Your task to perform on an android device: Search for macbook pro 15 inch on newegg.com, select the first entry, and add it to the cart. Image 0: 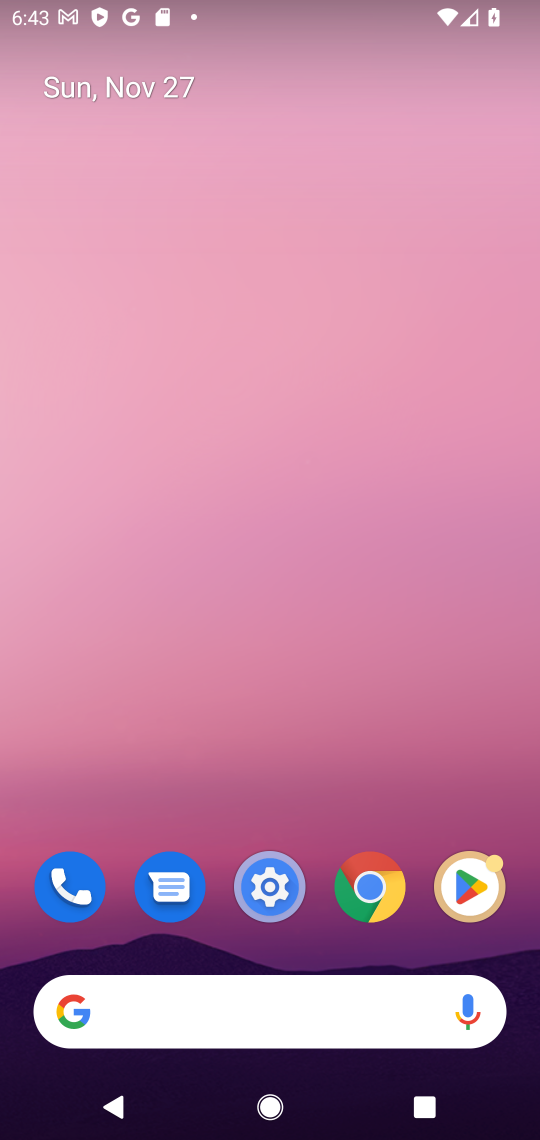
Step 0: click (266, 1005)
Your task to perform on an android device: Search for macbook pro 15 inch on newegg.com, select the first entry, and add it to the cart. Image 1: 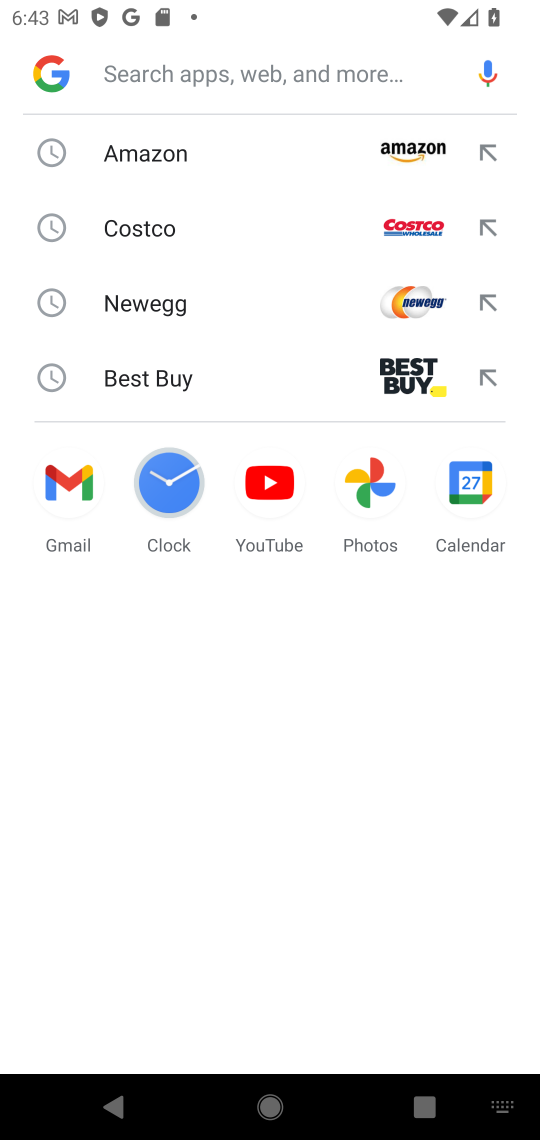
Step 1: type "newegg.com"
Your task to perform on an android device: Search for macbook pro 15 inch on newegg.com, select the first entry, and add it to the cart. Image 2: 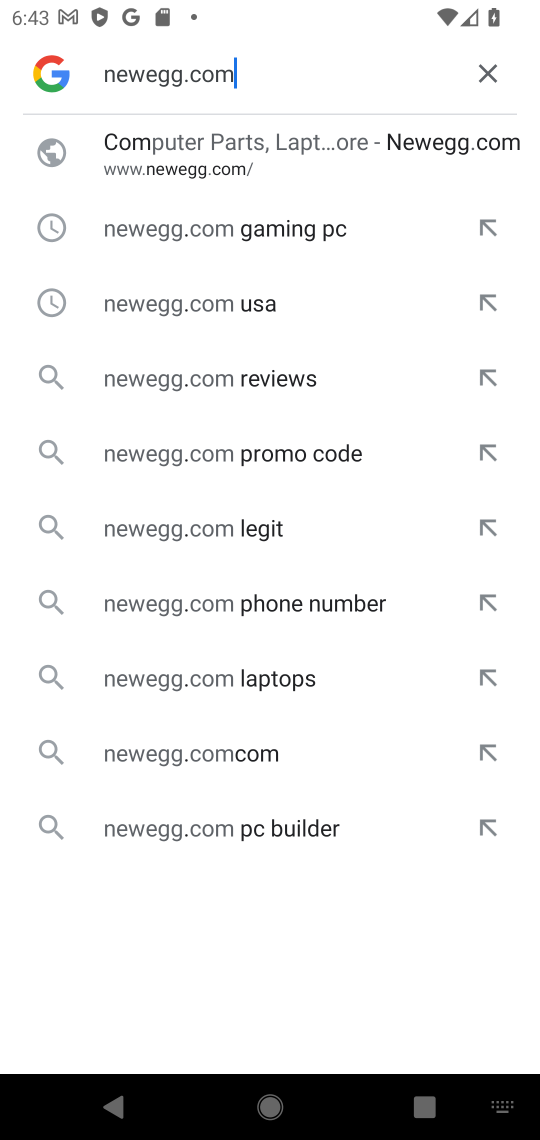
Step 2: click (202, 156)
Your task to perform on an android device: Search for macbook pro 15 inch on newegg.com, select the first entry, and add it to the cart. Image 3: 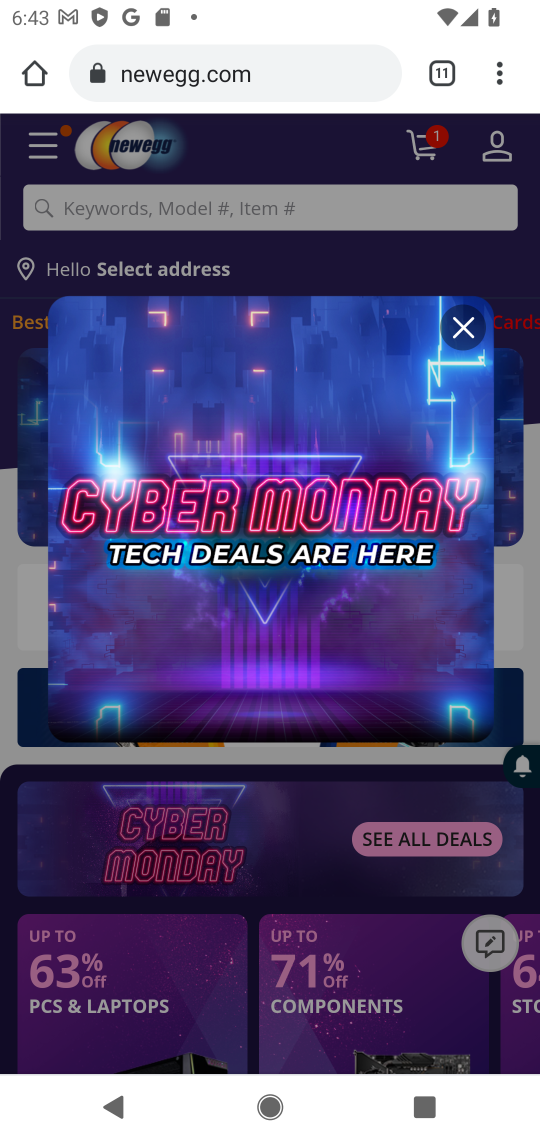
Step 3: click (174, 228)
Your task to perform on an android device: Search for macbook pro 15 inch on newegg.com, select the first entry, and add it to the cart. Image 4: 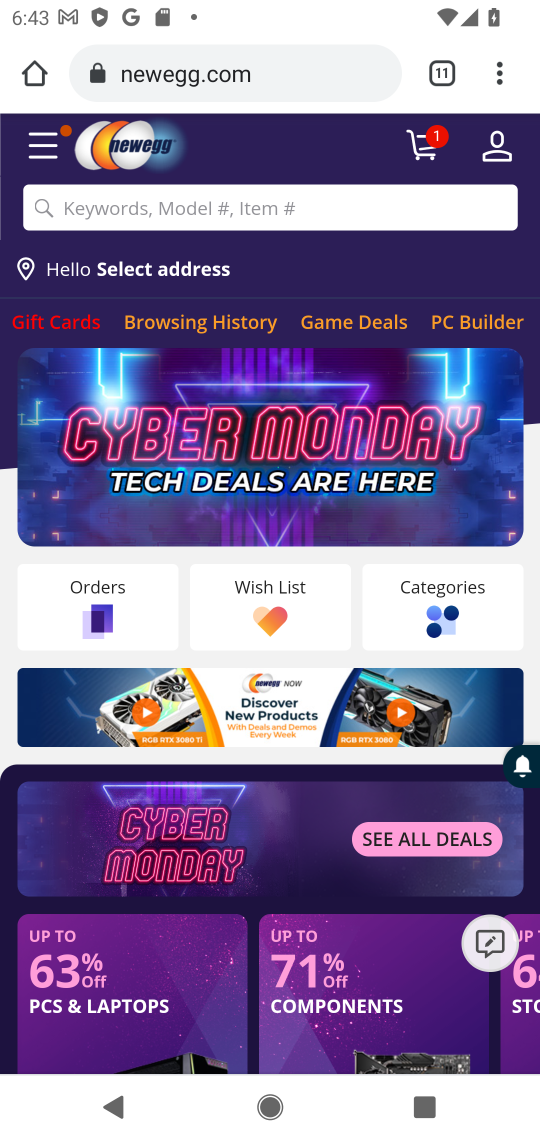
Step 4: type "macbook pro 15"
Your task to perform on an android device: Search for macbook pro 15 inch on newegg.com, select the first entry, and add it to the cart. Image 5: 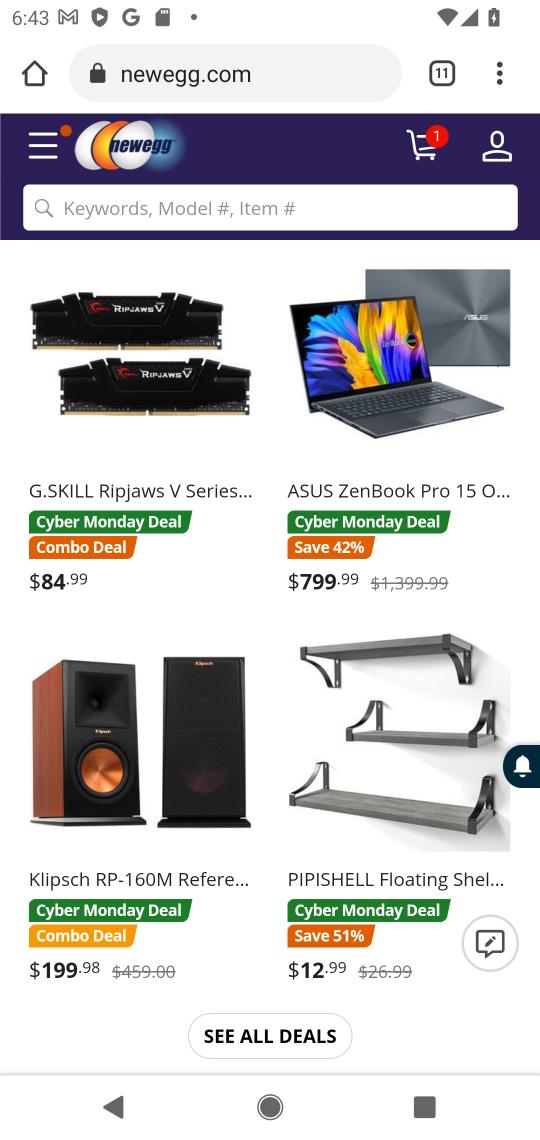
Step 5: click (150, 228)
Your task to perform on an android device: Search for macbook pro 15 inch on newegg.com, select the first entry, and add it to the cart. Image 6: 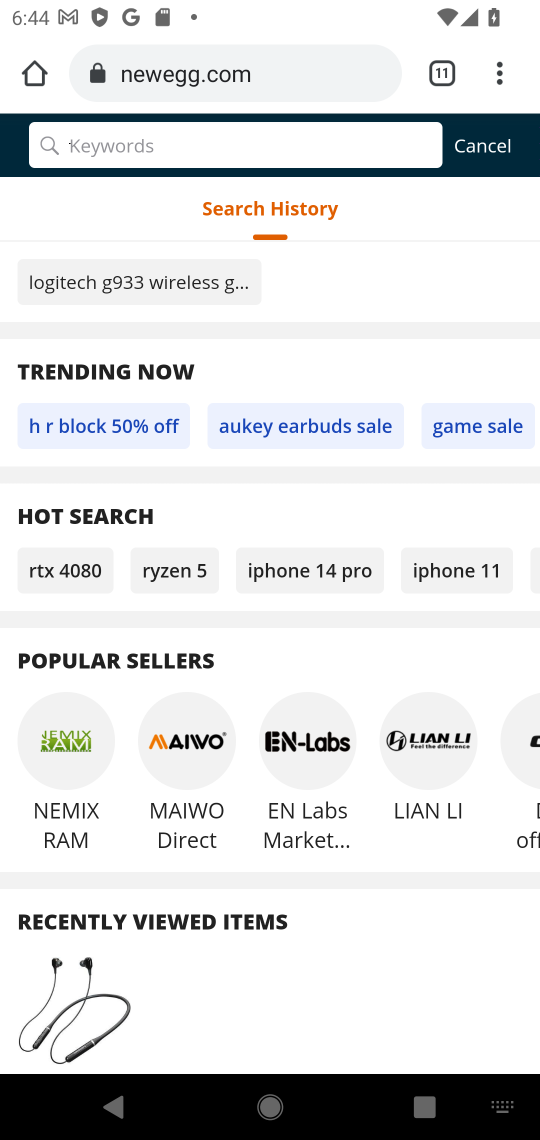
Step 6: type "macbook pro 15"
Your task to perform on an android device: Search for macbook pro 15 inch on newegg.com, select the first entry, and add it to the cart. Image 7: 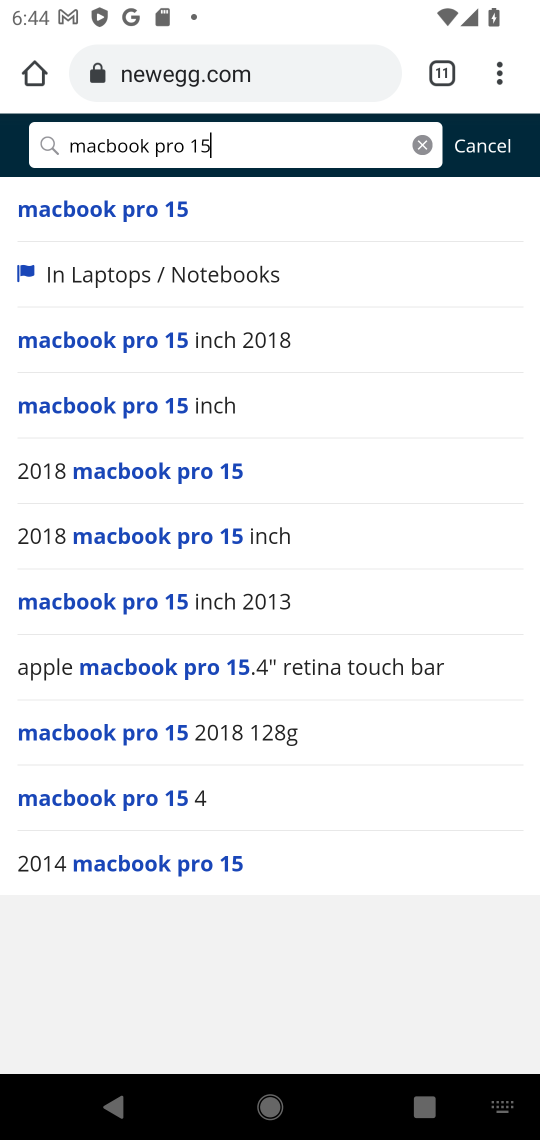
Step 7: click (116, 220)
Your task to perform on an android device: Search for macbook pro 15 inch on newegg.com, select the first entry, and add it to the cart. Image 8: 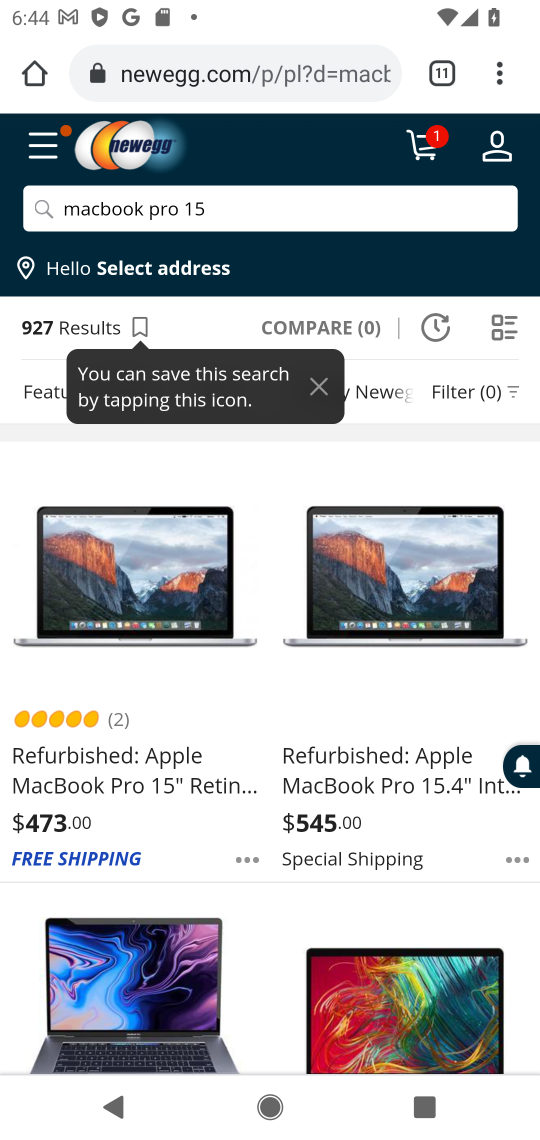
Step 8: click (129, 775)
Your task to perform on an android device: Search for macbook pro 15 inch on newegg.com, select the first entry, and add it to the cart. Image 9: 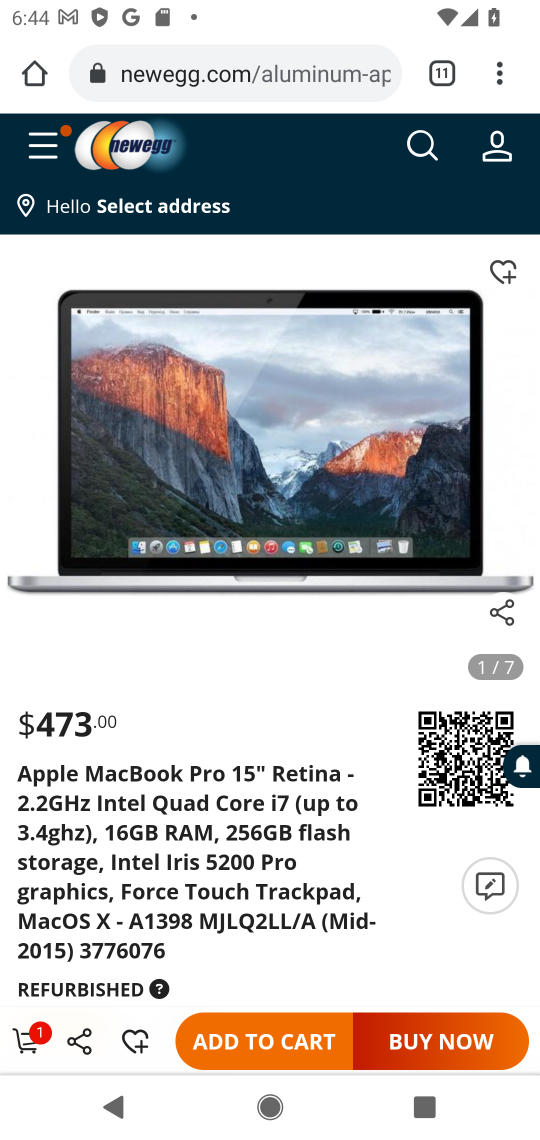
Step 9: click (252, 1033)
Your task to perform on an android device: Search for macbook pro 15 inch on newegg.com, select the first entry, and add it to the cart. Image 10: 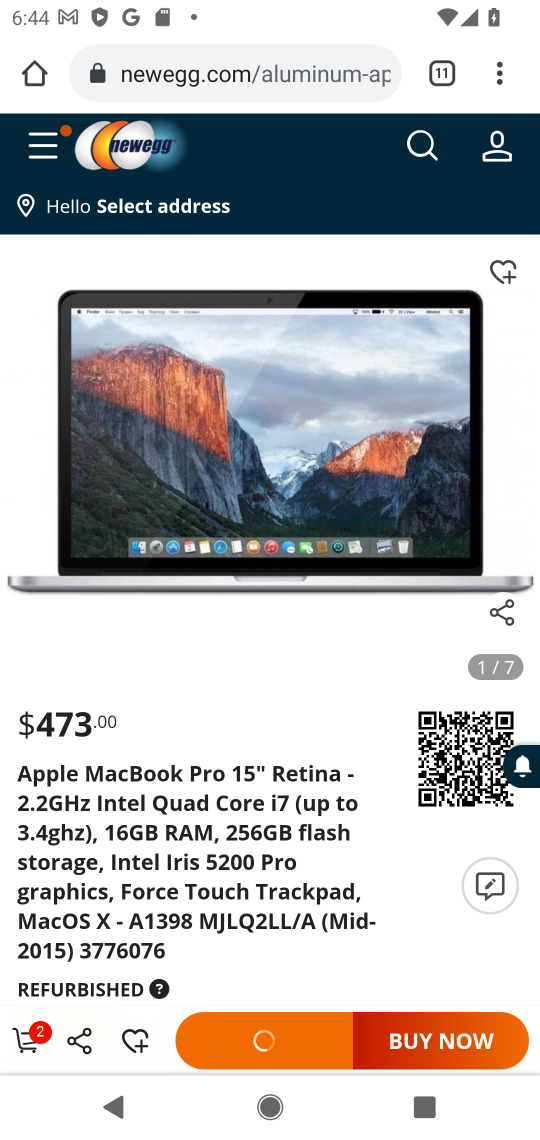
Step 10: task complete